Your task to perform on an android device: turn pop-ups on in chrome Image 0: 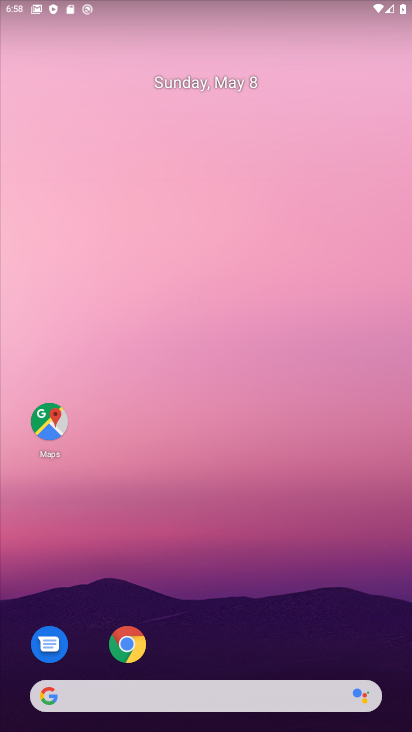
Step 0: click (127, 640)
Your task to perform on an android device: turn pop-ups on in chrome Image 1: 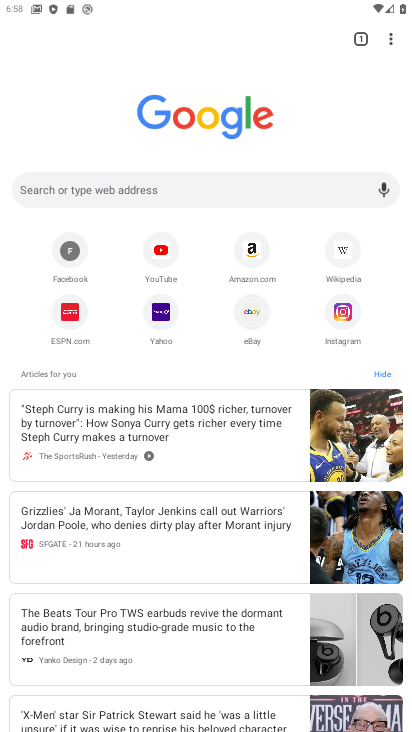
Step 1: click (388, 46)
Your task to perform on an android device: turn pop-ups on in chrome Image 2: 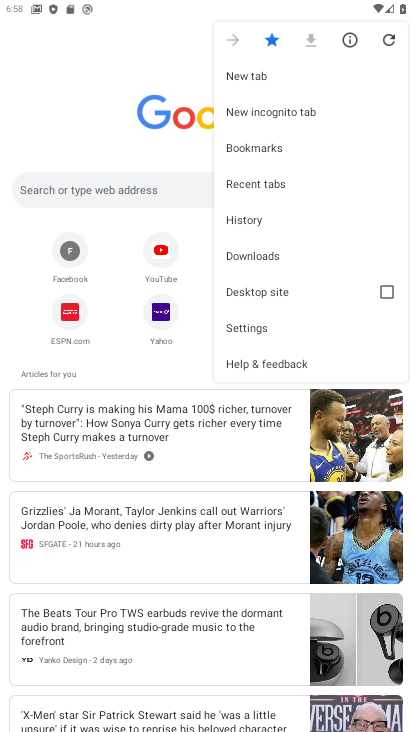
Step 2: click (296, 319)
Your task to perform on an android device: turn pop-ups on in chrome Image 3: 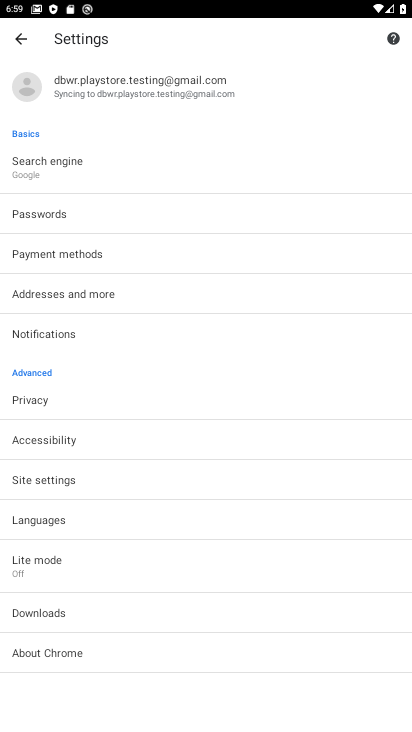
Step 3: click (95, 479)
Your task to perform on an android device: turn pop-ups on in chrome Image 4: 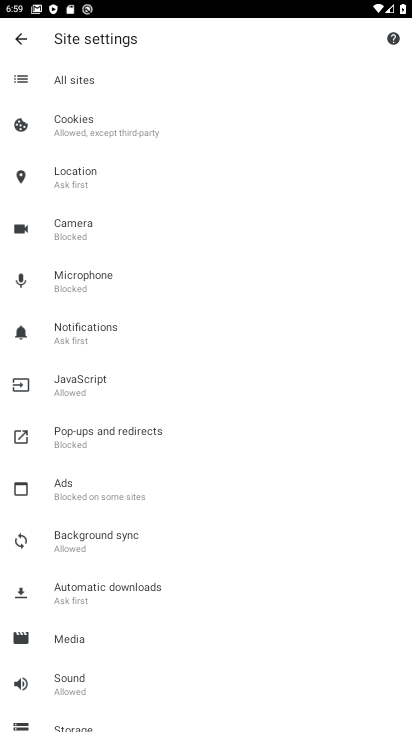
Step 4: click (100, 441)
Your task to perform on an android device: turn pop-ups on in chrome Image 5: 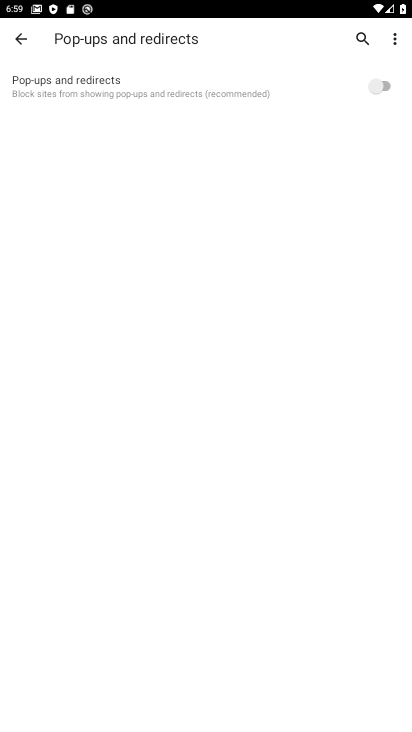
Step 5: click (409, 81)
Your task to perform on an android device: turn pop-ups on in chrome Image 6: 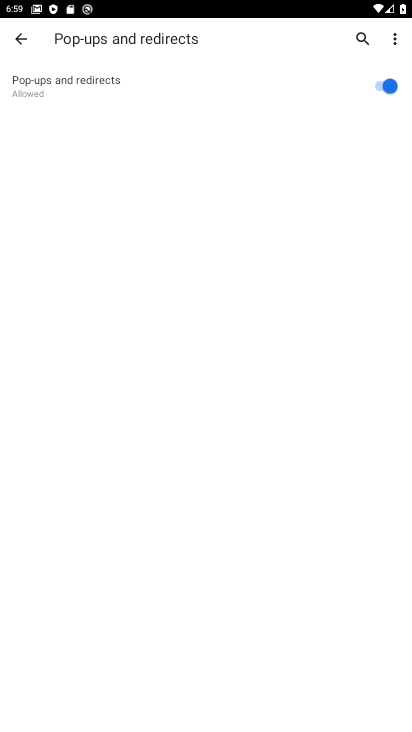
Step 6: task complete